Your task to perform on an android device: Go to Android settings Image 0: 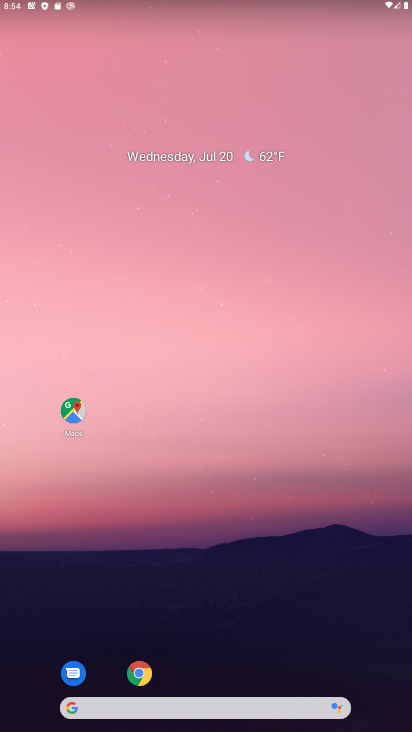
Step 0: drag from (379, 641) to (288, 115)
Your task to perform on an android device: Go to Android settings Image 1: 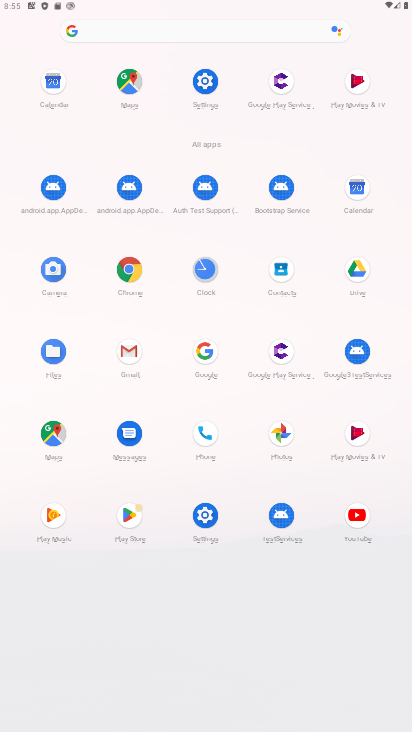
Step 1: click (204, 83)
Your task to perform on an android device: Go to Android settings Image 2: 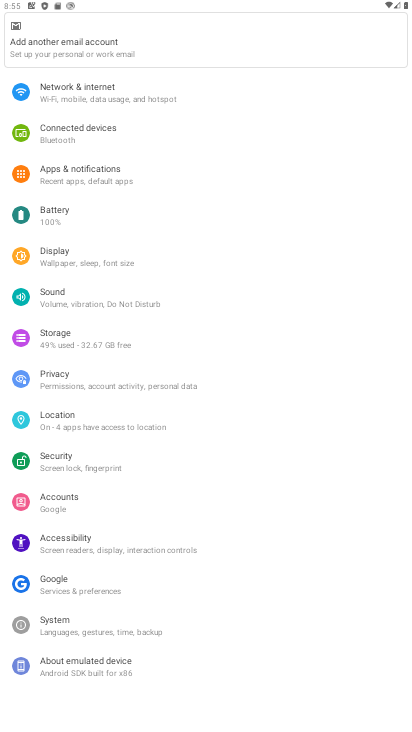
Step 2: task complete